Your task to perform on an android device: Open Yahoo.com Image 0: 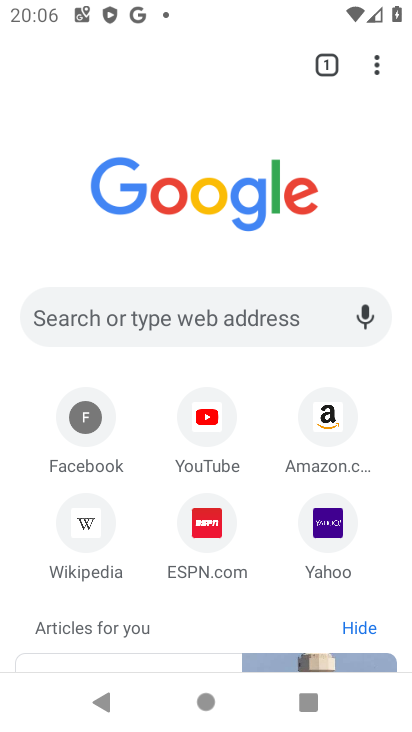
Step 0: press home button
Your task to perform on an android device: Open Yahoo.com Image 1: 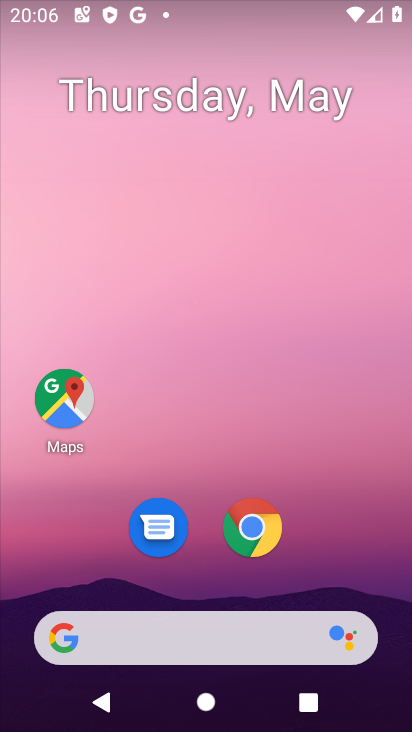
Step 1: click (244, 527)
Your task to perform on an android device: Open Yahoo.com Image 2: 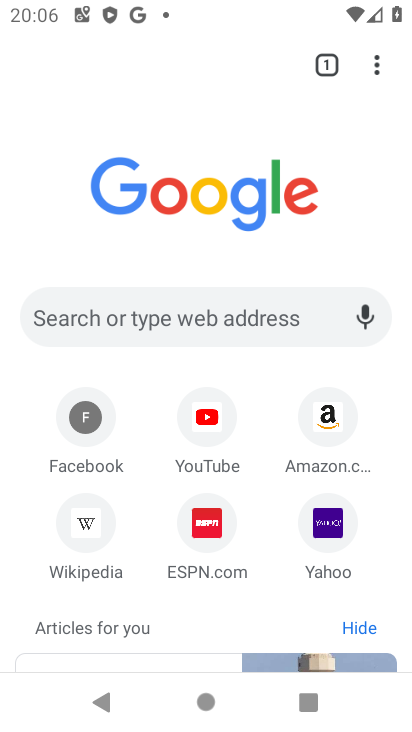
Step 2: click (315, 520)
Your task to perform on an android device: Open Yahoo.com Image 3: 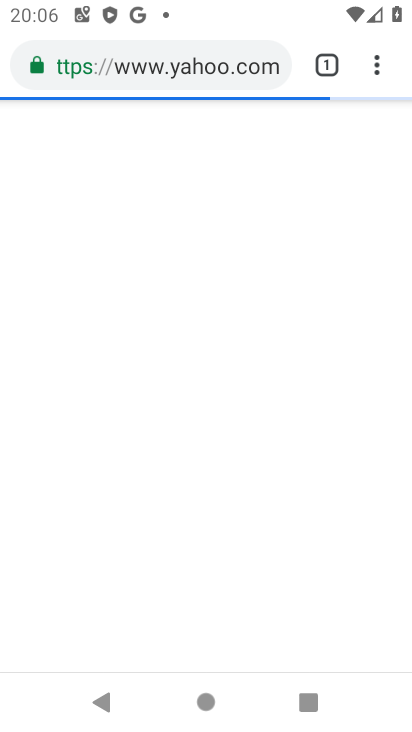
Step 3: drag from (317, 475) to (311, 518)
Your task to perform on an android device: Open Yahoo.com Image 4: 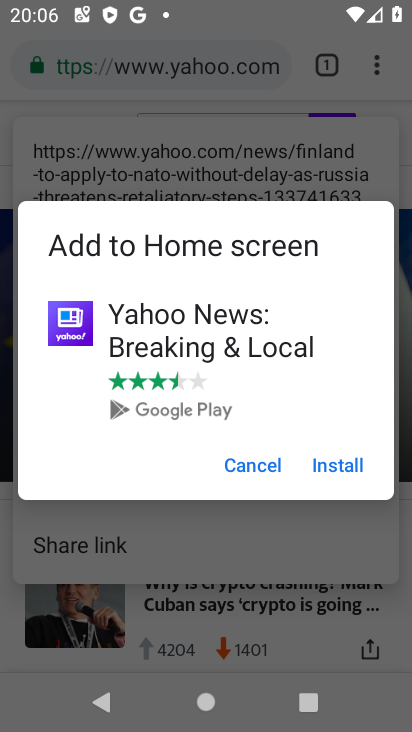
Step 4: click (264, 471)
Your task to perform on an android device: Open Yahoo.com Image 5: 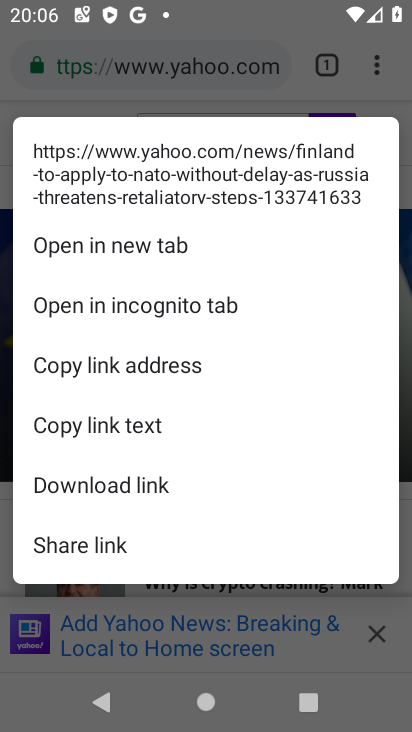
Step 5: click (358, 643)
Your task to perform on an android device: Open Yahoo.com Image 6: 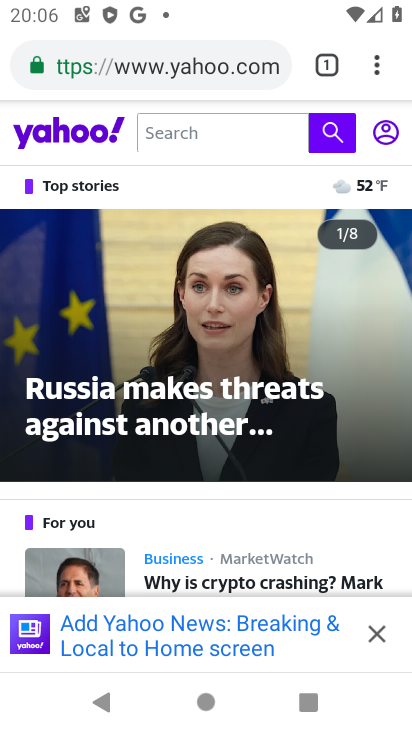
Step 6: task complete